Your task to perform on an android device: all mails in gmail Image 0: 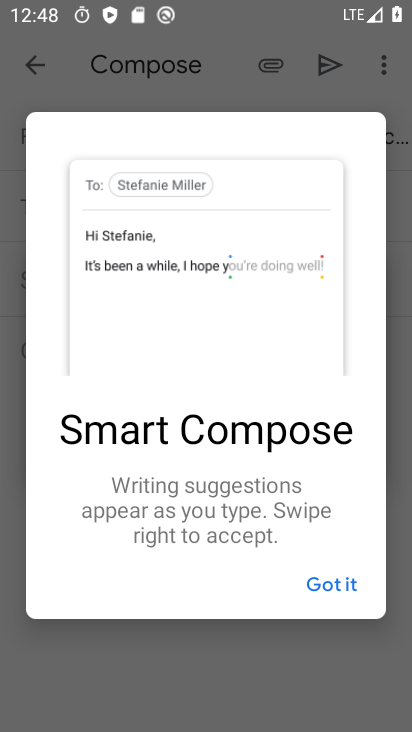
Step 0: press home button
Your task to perform on an android device: all mails in gmail Image 1: 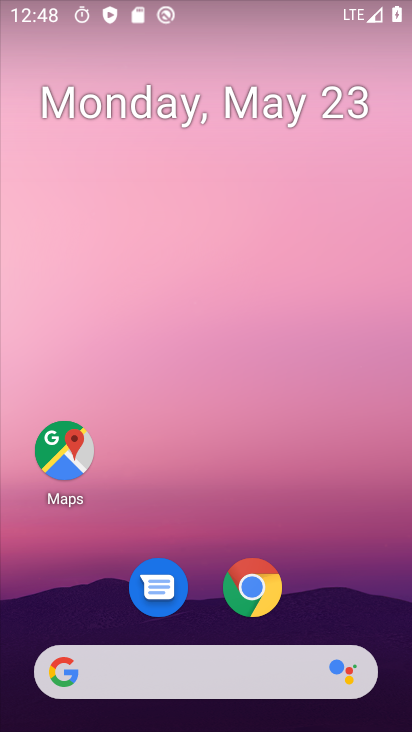
Step 1: drag from (108, 632) to (271, 45)
Your task to perform on an android device: all mails in gmail Image 2: 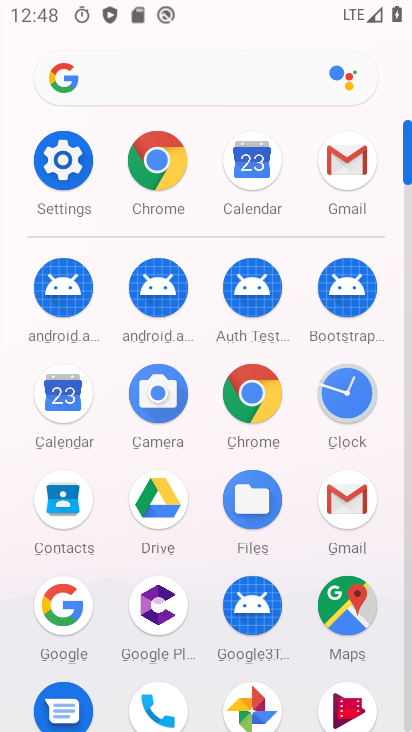
Step 2: click (334, 172)
Your task to perform on an android device: all mails in gmail Image 3: 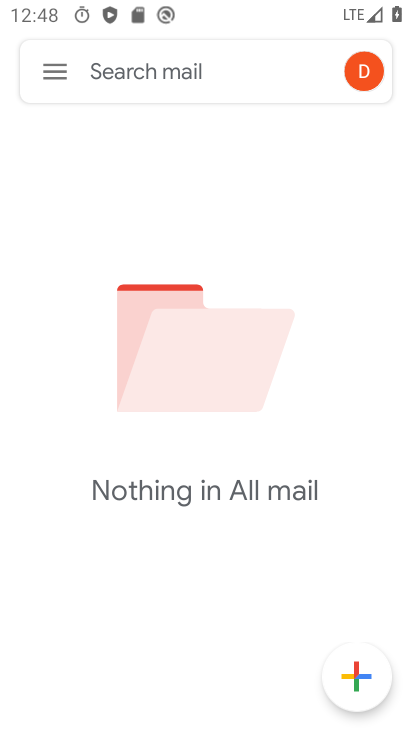
Step 3: task complete